Your task to perform on an android device: toggle notifications settings in the gmail app Image 0: 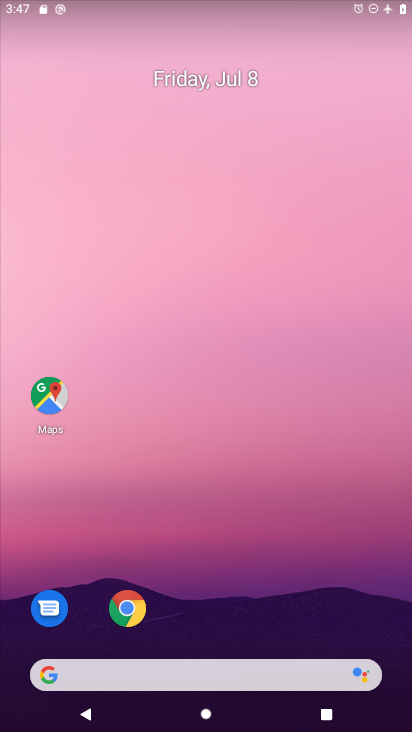
Step 0: drag from (341, 252) to (367, 51)
Your task to perform on an android device: toggle notifications settings in the gmail app Image 1: 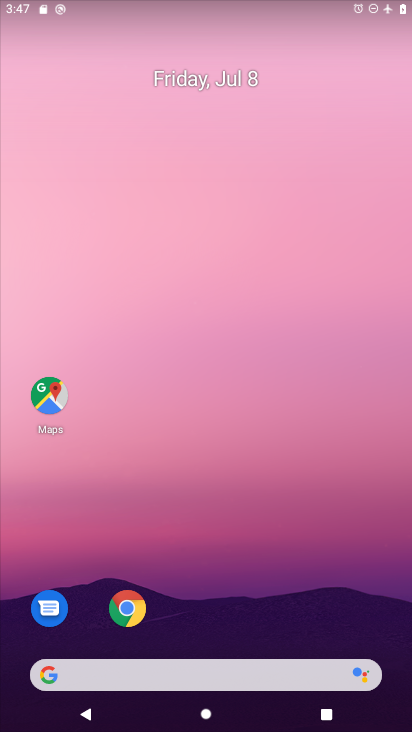
Step 1: drag from (295, 689) to (295, 18)
Your task to perform on an android device: toggle notifications settings in the gmail app Image 2: 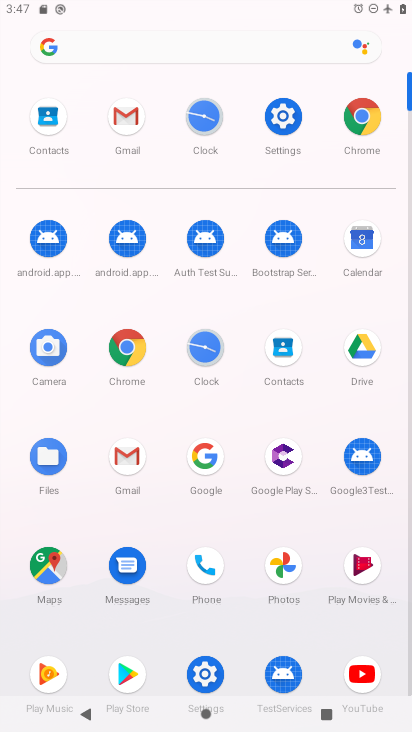
Step 2: click (126, 444)
Your task to perform on an android device: toggle notifications settings in the gmail app Image 3: 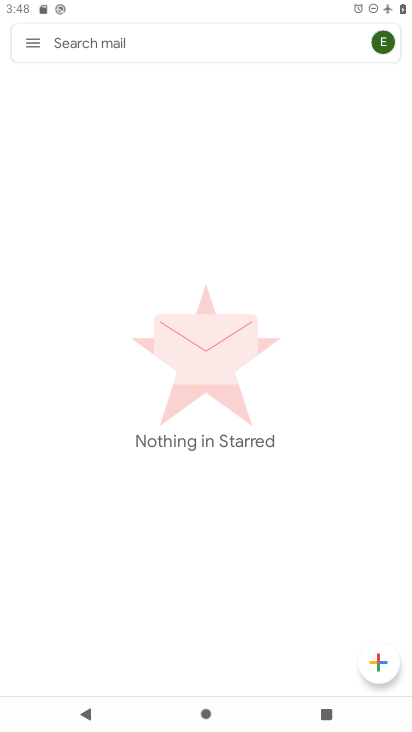
Step 3: click (26, 43)
Your task to perform on an android device: toggle notifications settings in the gmail app Image 4: 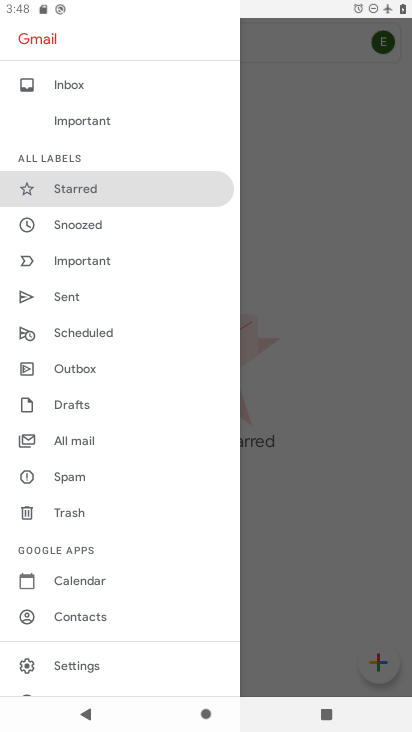
Step 4: click (105, 644)
Your task to perform on an android device: toggle notifications settings in the gmail app Image 5: 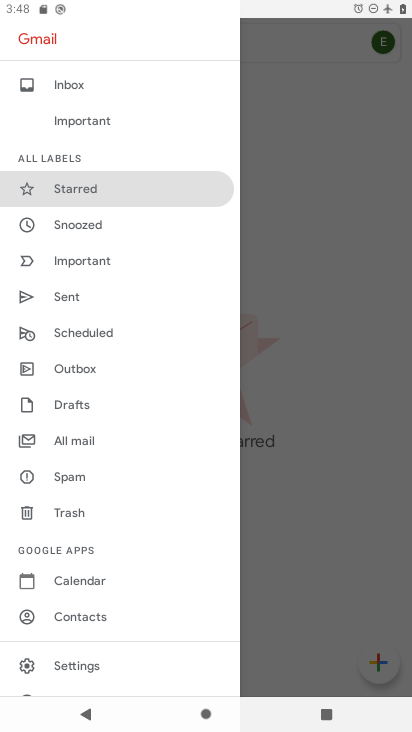
Step 5: click (98, 661)
Your task to perform on an android device: toggle notifications settings in the gmail app Image 6: 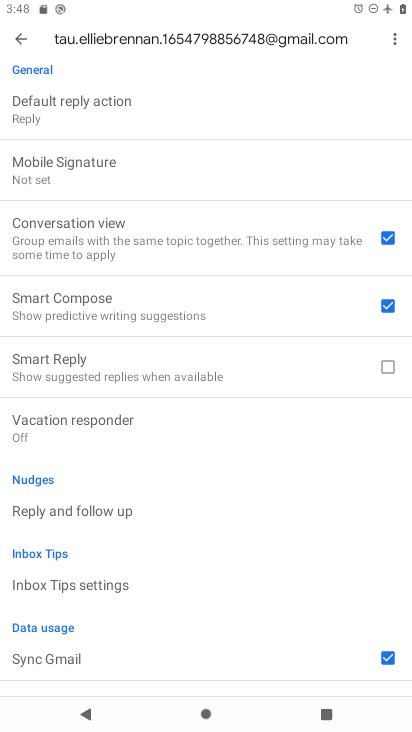
Step 6: drag from (132, 589) to (141, 158)
Your task to perform on an android device: toggle notifications settings in the gmail app Image 7: 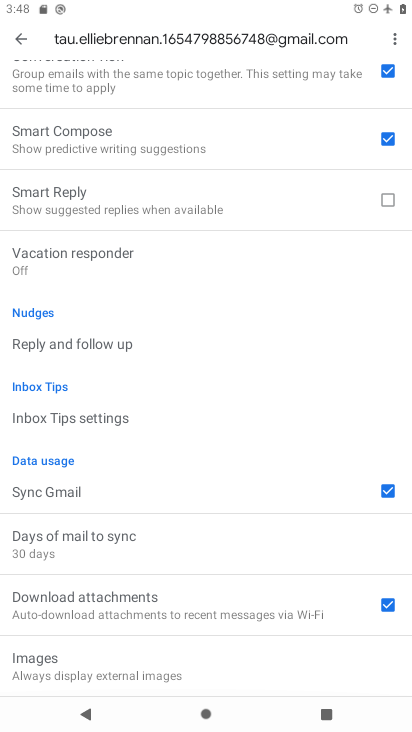
Step 7: drag from (144, 198) to (134, 729)
Your task to perform on an android device: toggle notifications settings in the gmail app Image 8: 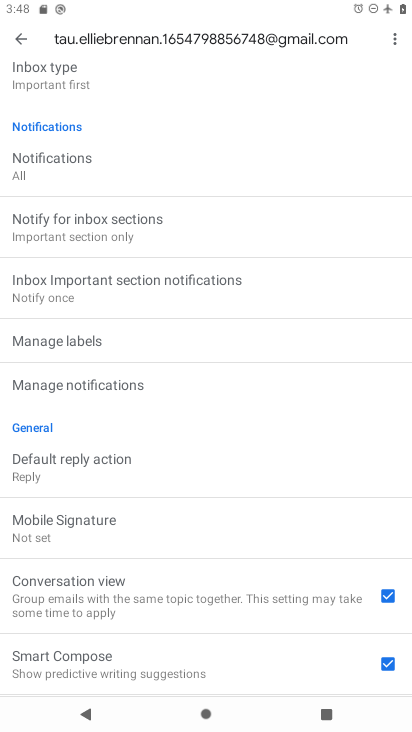
Step 8: click (103, 379)
Your task to perform on an android device: toggle notifications settings in the gmail app Image 9: 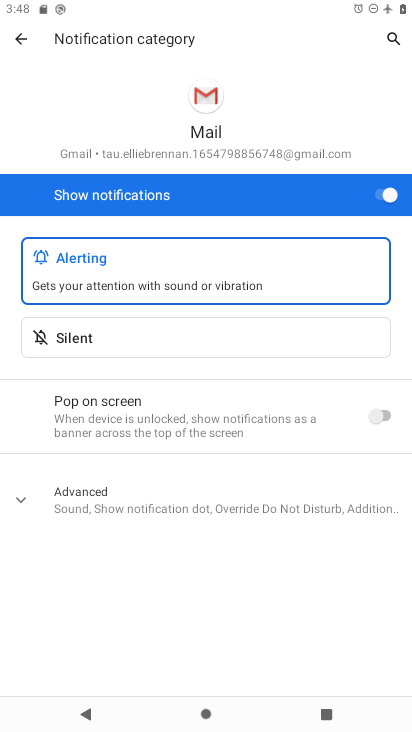
Step 9: click (382, 193)
Your task to perform on an android device: toggle notifications settings in the gmail app Image 10: 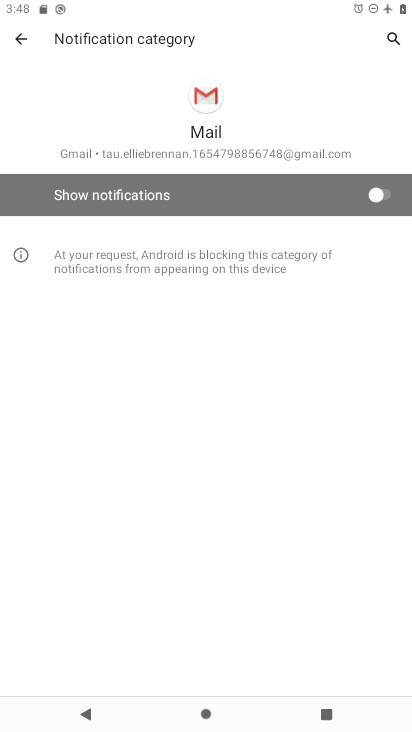
Step 10: task complete